Your task to perform on an android device: Go to ESPN.com Image 0: 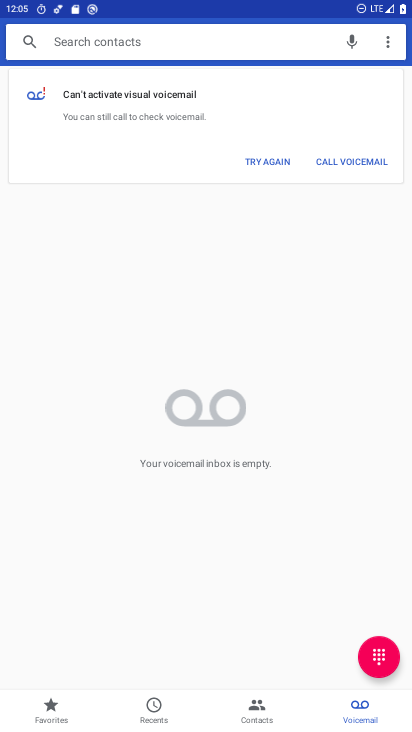
Step 0: press home button
Your task to perform on an android device: Go to ESPN.com Image 1: 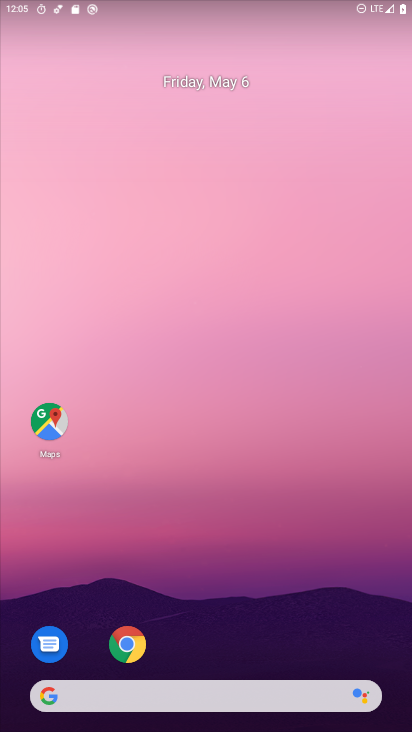
Step 1: drag from (351, 640) to (356, 165)
Your task to perform on an android device: Go to ESPN.com Image 2: 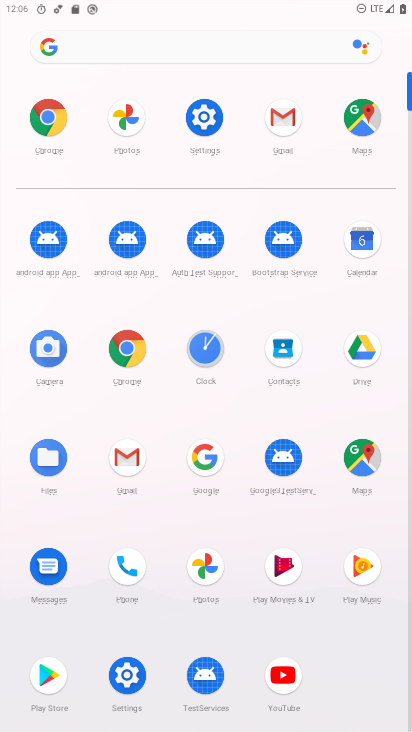
Step 2: click (128, 348)
Your task to perform on an android device: Go to ESPN.com Image 3: 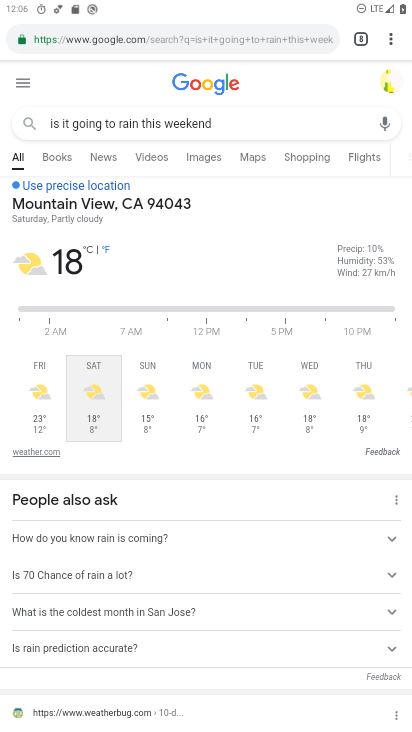
Step 3: click (196, 34)
Your task to perform on an android device: Go to ESPN.com Image 4: 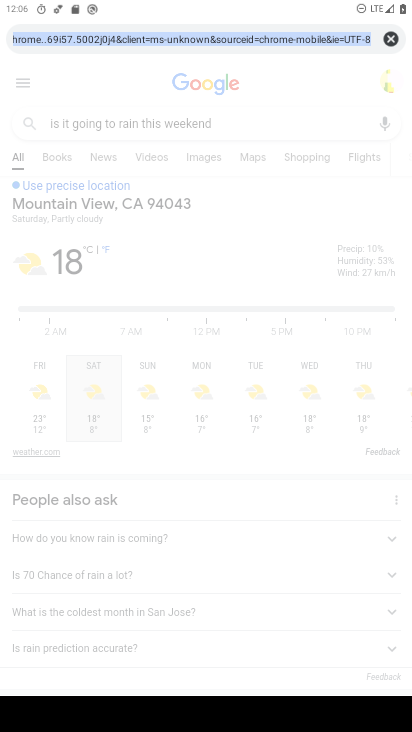
Step 4: click (390, 33)
Your task to perform on an android device: Go to ESPN.com Image 5: 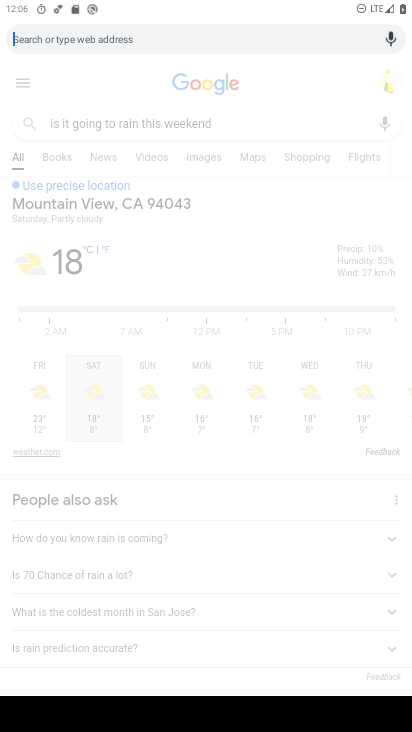
Step 5: type "espn.com"
Your task to perform on an android device: Go to ESPN.com Image 6: 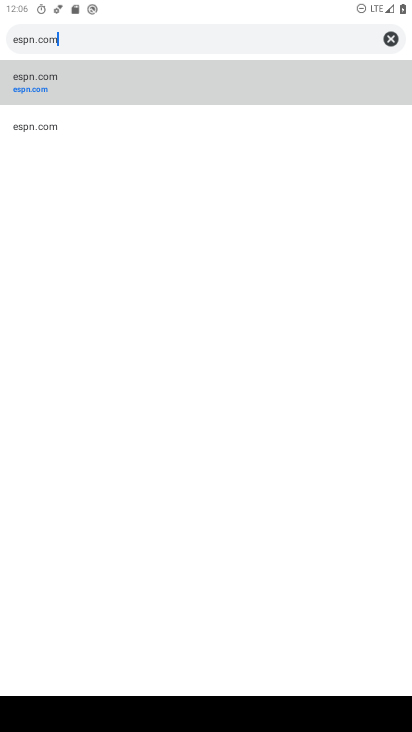
Step 6: click (44, 89)
Your task to perform on an android device: Go to ESPN.com Image 7: 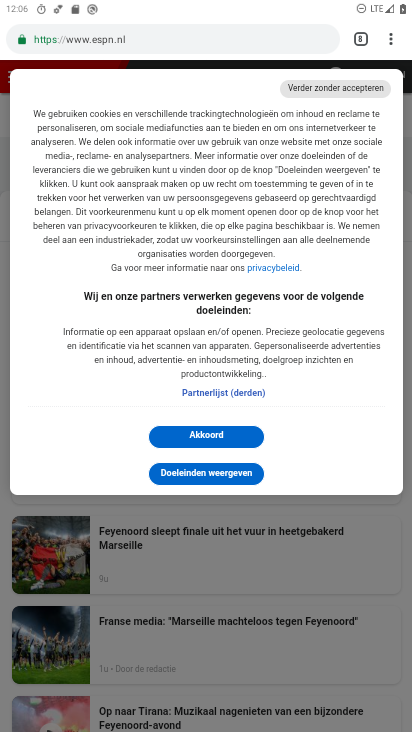
Step 7: task complete